Your task to perform on an android device: change the clock style Image 0: 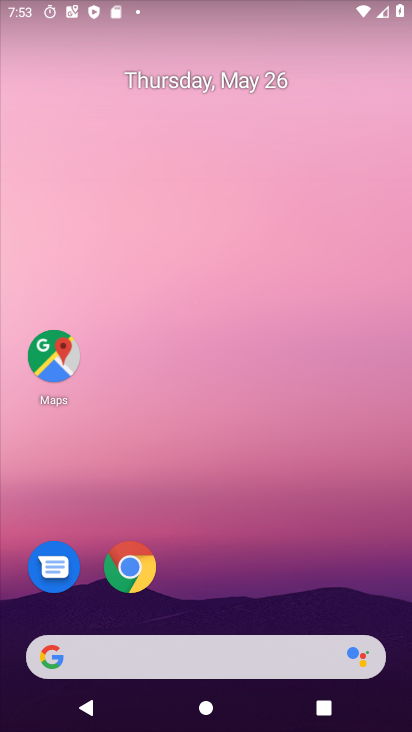
Step 0: drag from (168, 653) to (340, 44)
Your task to perform on an android device: change the clock style Image 1: 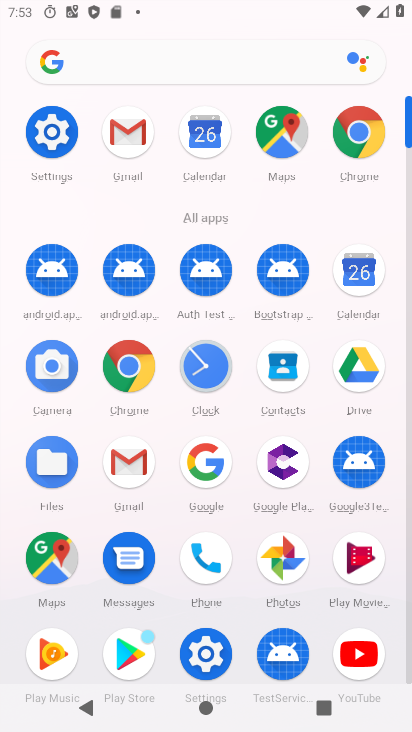
Step 1: click (210, 374)
Your task to perform on an android device: change the clock style Image 2: 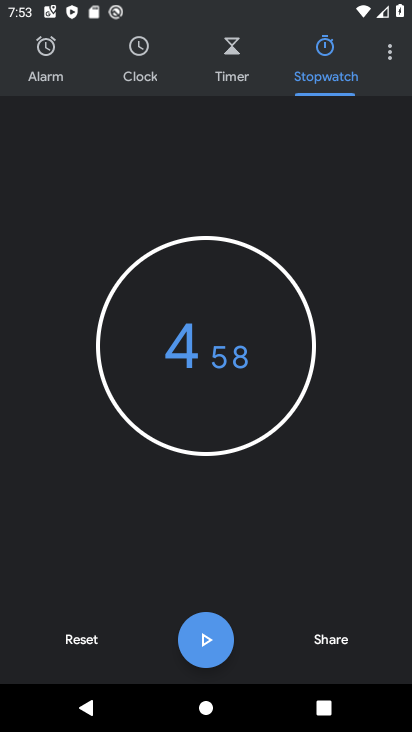
Step 2: click (389, 62)
Your task to perform on an android device: change the clock style Image 3: 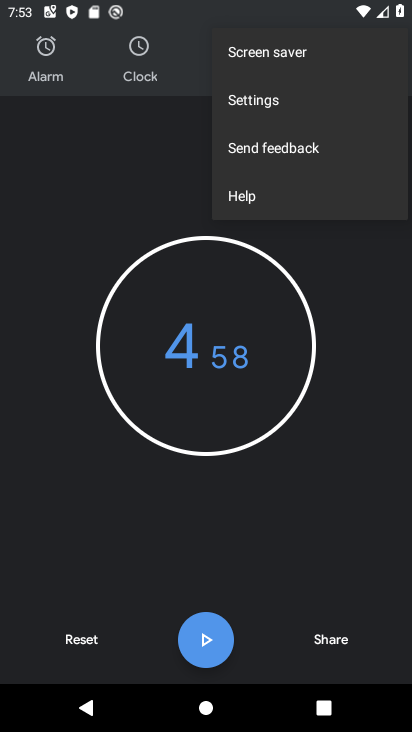
Step 3: click (285, 103)
Your task to perform on an android device: change the clock style Image 4: 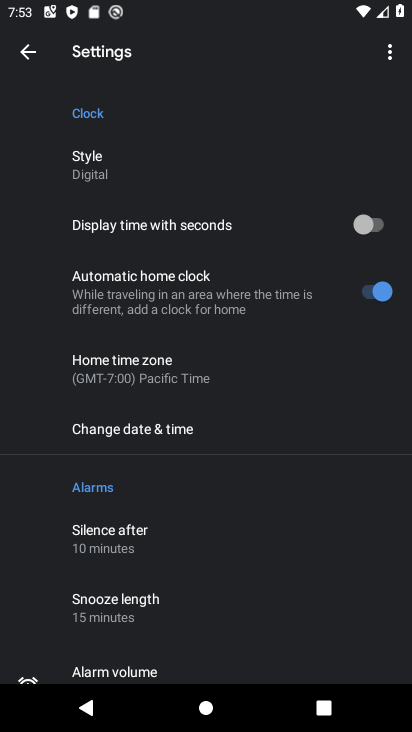
Step 4: click (105, 163)
Your task to perform on an android device: change the clock style Image 5: 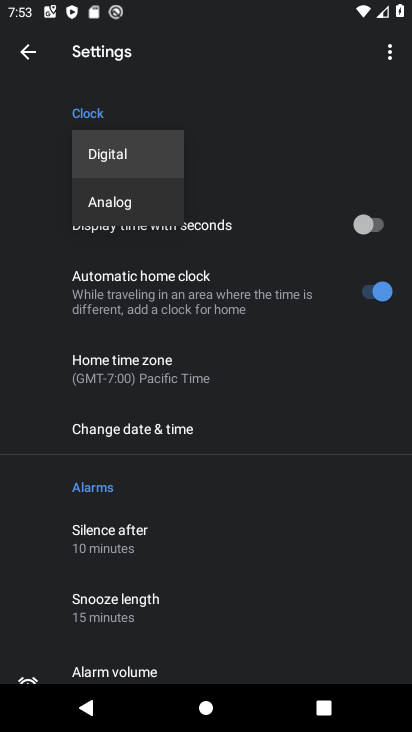
Step 5: click (137, 208)
Your task to perform on an android device: change the clock style Image 6: 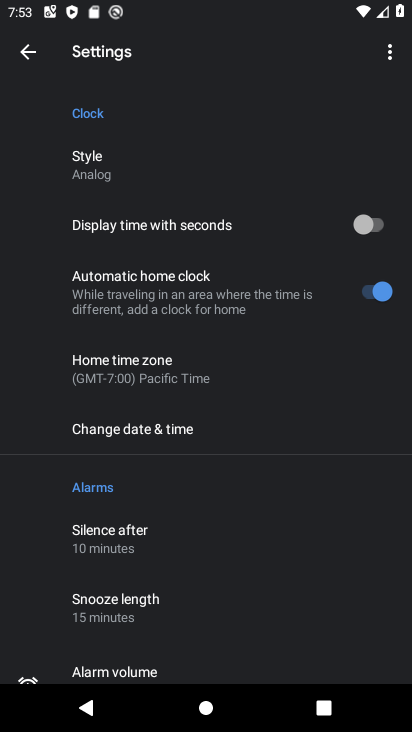
Step 6: task complete